Your task to perform on an android device: toggle data saver in the chrome app Image 0: 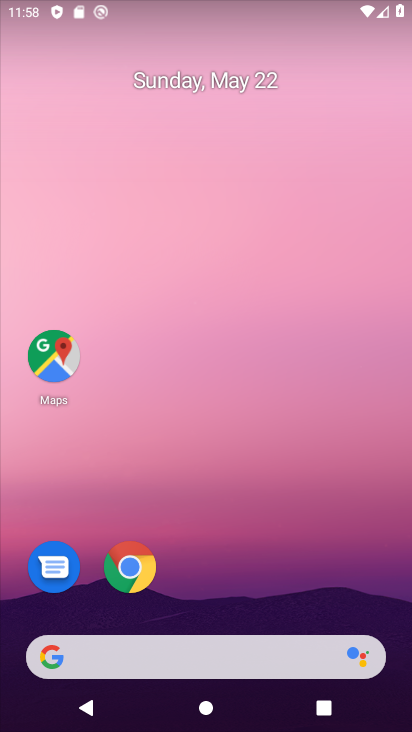
Step 0: click (128, 558)
Your task to perform on an android device: toggle data saver in the chrome app Image 1: 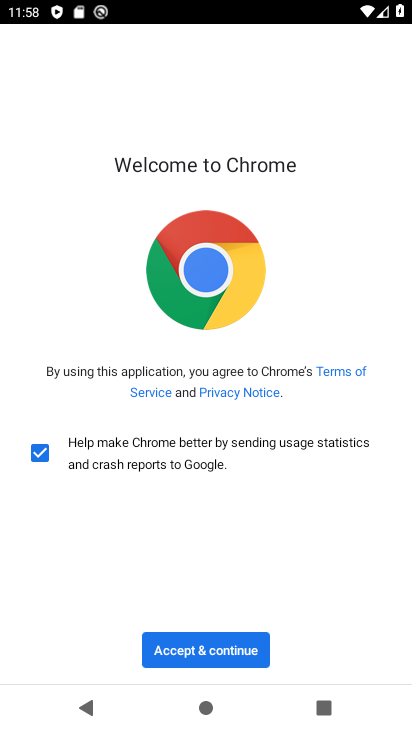
Step 1: click (213, 641)
Your task to perform on an android device: toggle data saver in the chrome app Image 2: 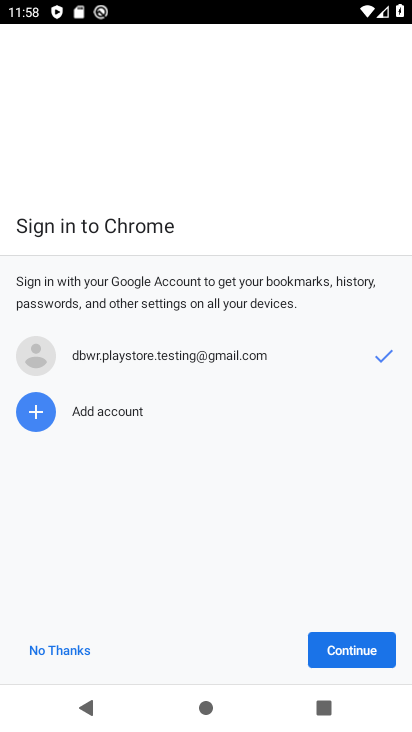
Step 2: click (332, 644)
Your task to perform on an android device: toggle data saver in the chrome app Image 3: 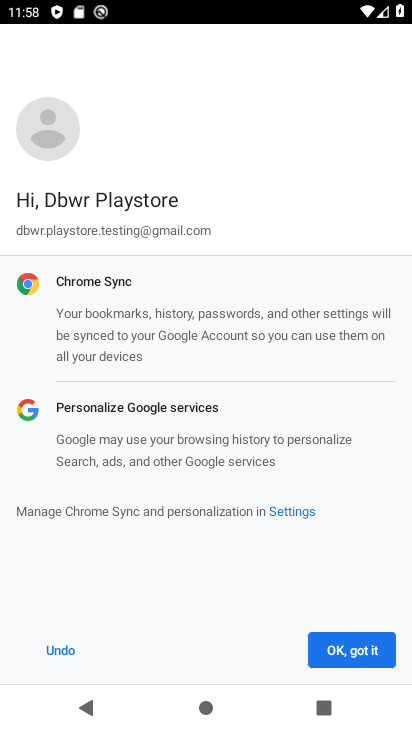
Step 3: click (338, 646)
Your task to perform on an android device: toggle data saver in the chrome app Image 4: 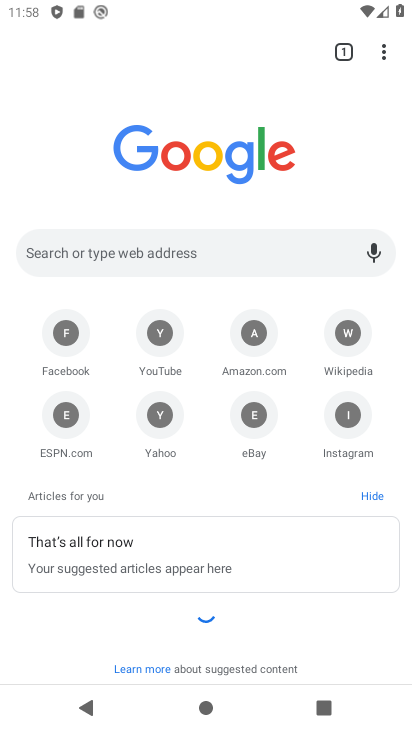
Step 4: click (372, 48)
Your task to perform on an android device: toggle data saver in the chrome app Image 5: 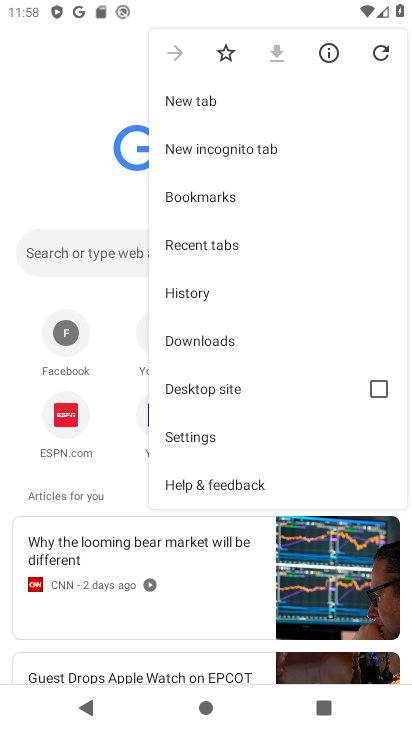
Step 5: click (185, 430)
Your task to perform on an android device: toggle data saver in the chrome app Image 6: 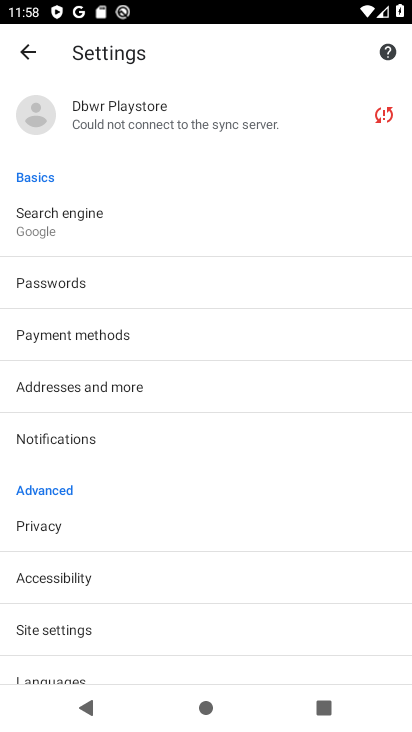
Step 6: drag from (217, 594) to (211, 299)
Your task to perform on an android device: toggle data saver in the chrome app Image 7: 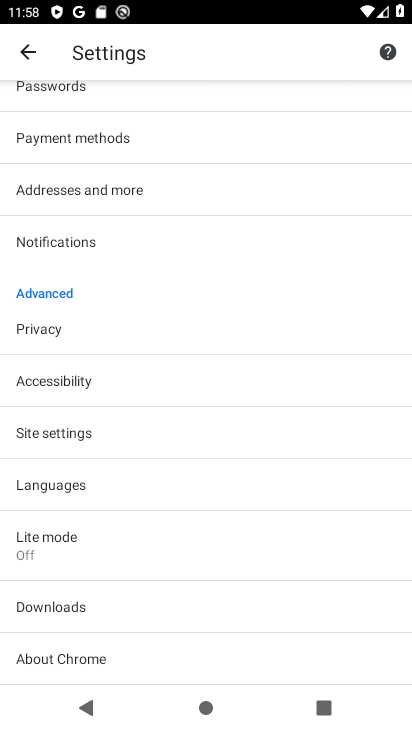
Step 7: click (96, 550)
Your task to perform on an android device: toggle data saver in the chrome app Image 8: 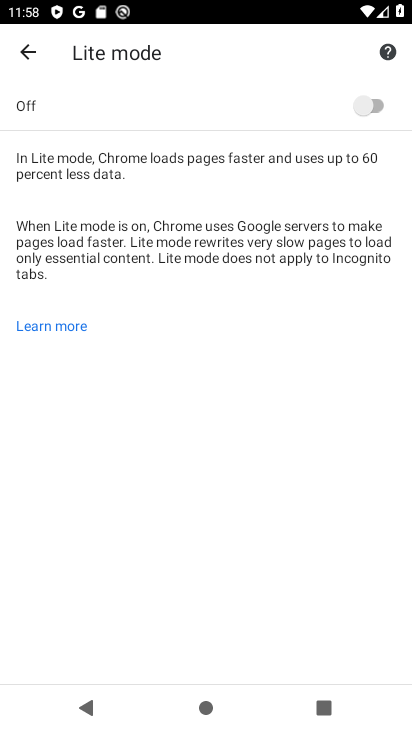
Step 8: click (385, 104)
Your task to perform on an android device: toggle data saver in the chrome app Image 9: 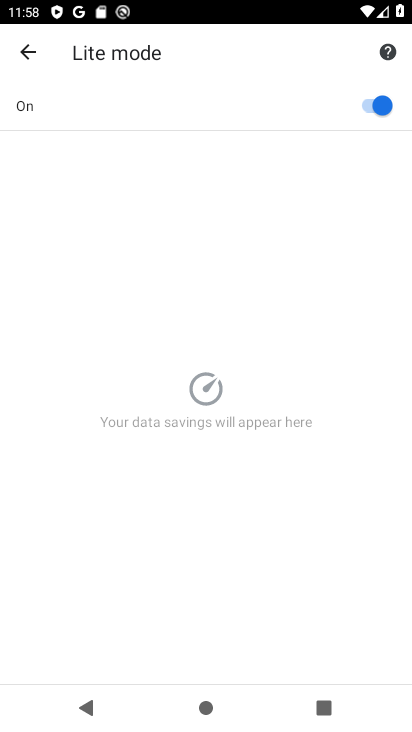
Step 9: task complete